Your task to perform on an android device: Find coffee shops on Maps Image 0: 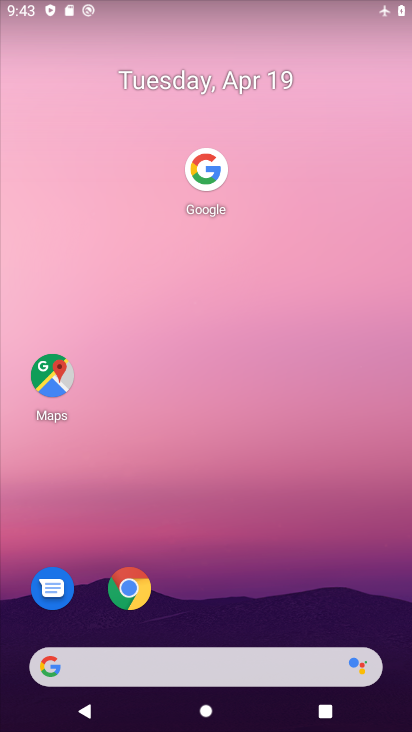
Step 0: click (46, 382)
Your task to perform on an android device: Find coffee shops on Maps Image 1: 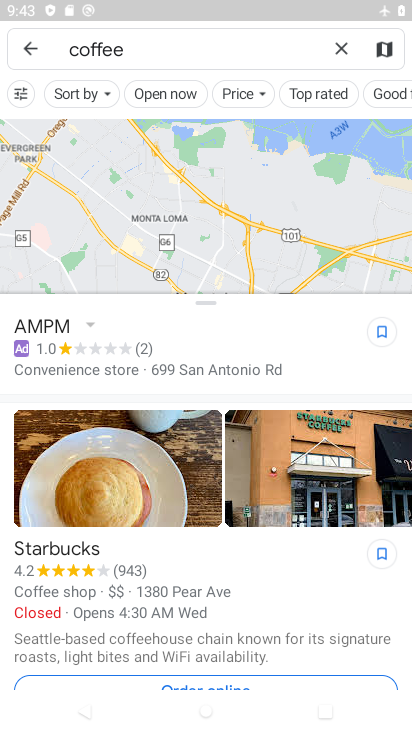
Step 1: click (160, 50)
Your task to perform on an android device: Find coffee shops on Maps Image 2: 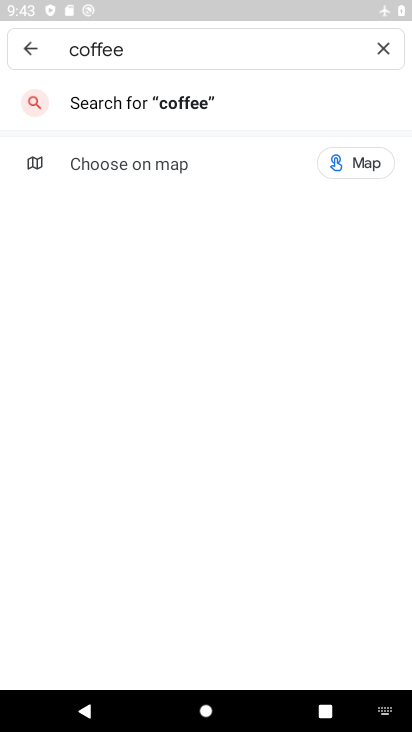
Step 2: type "shop"
Your task to perform on an android device: Find coffee shops on Maps Image 3: 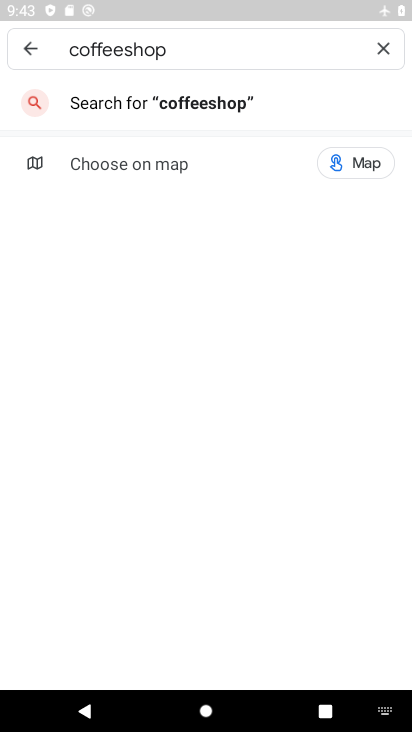
Step 3: click (225, 101)
Your task to perform on an android device: Find coffee shops on Maps Image 4: 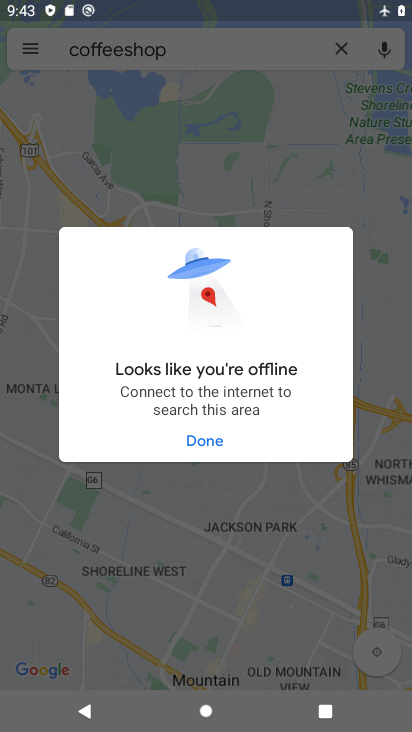
Step 4: click (197, 443)
Your task to perform on an android device: Find coffee shops on Maps Image 5: 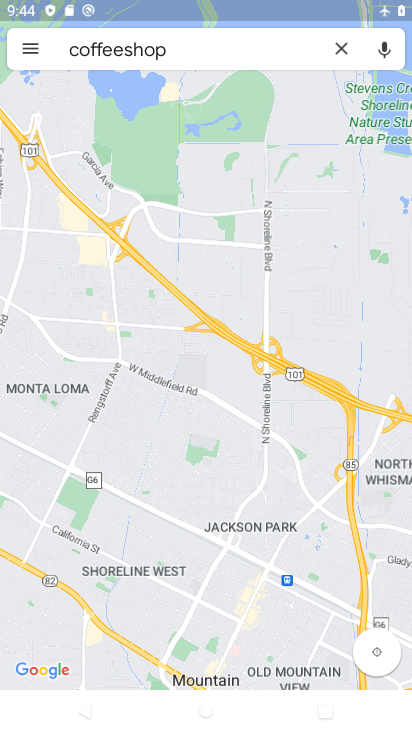
Step 5: task complete